Your task to perform on an android device: Go to location settings Image 0: 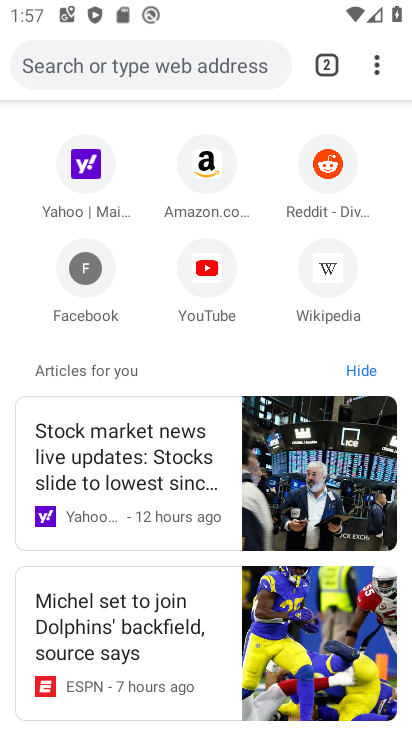
Step 0: press home button
Your task to perform on an android device: Go to location settings Image 1: 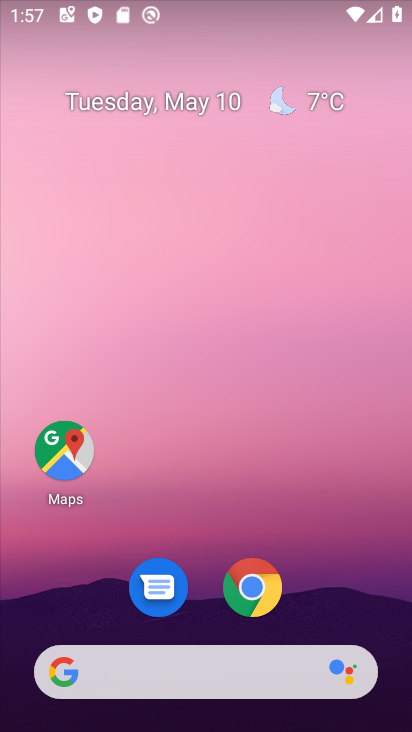
Step 1: drag from (336, 540) to (299, 86)
Your task to perform on an android device: Go to location settings Image 2: 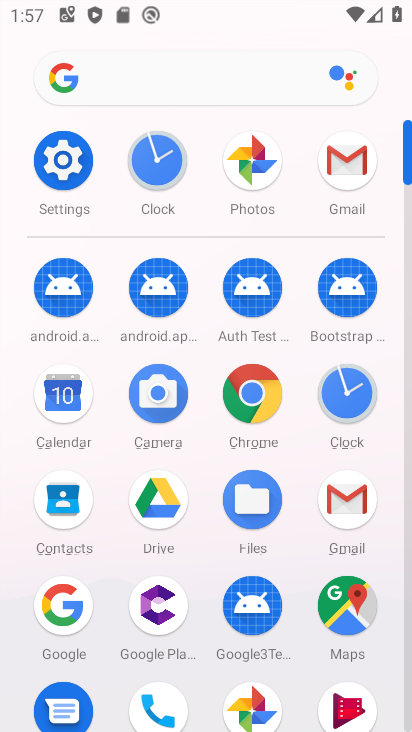
Step 2: click (77, 156)
Your task to perform on an android device: Go to location settings Image 3: 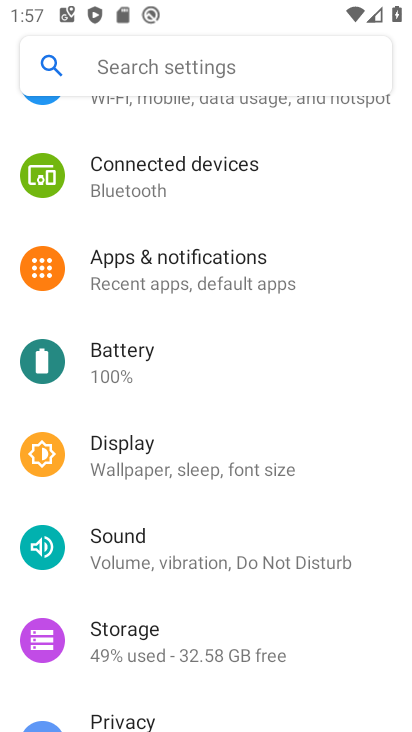
Step 3: drag from (271, 588) to (235, 256)
Your task to perform on an android device: Go to location settings Image 4: 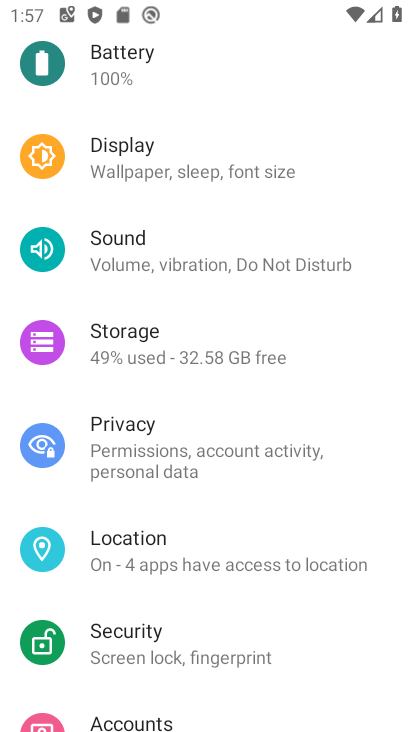
Step 4: drag from (222, 620) to (207, 299)
Your task to perform on an android device: Go to location settings Image 5: 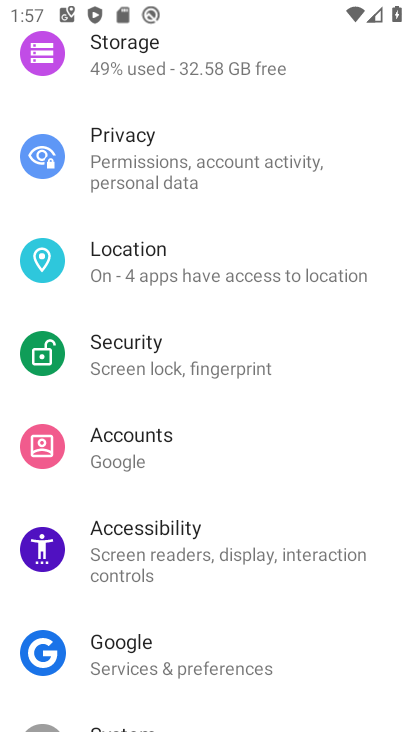
Step 5: drag from (194, 616) to (172, 447)
Your task to perform on an android device: Go to location settings Image 6: 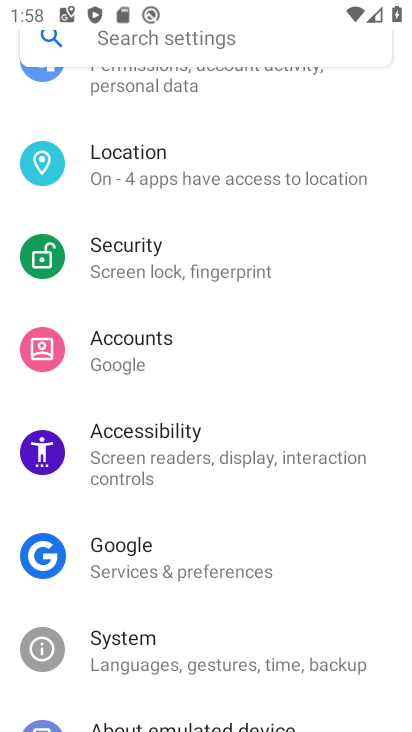
Step 6: click (134, 182)
Your task to perform on an android device: Go to location settings Image 7: 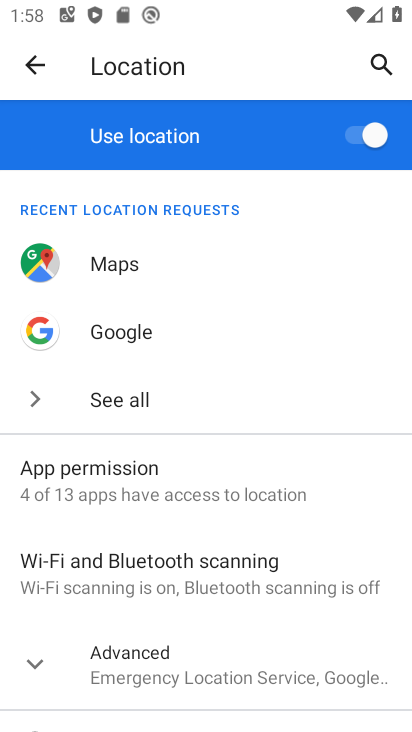
Step 7: task complete